Your task to perform on an android device: change notifications settings Image 0: 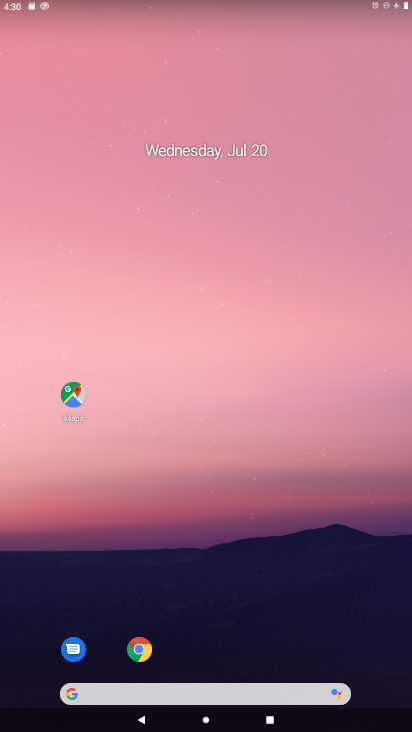
Step 0: drag from (220, 693) to (303, 253)
Your task to perform on an android device: change notifications settings Image 1: 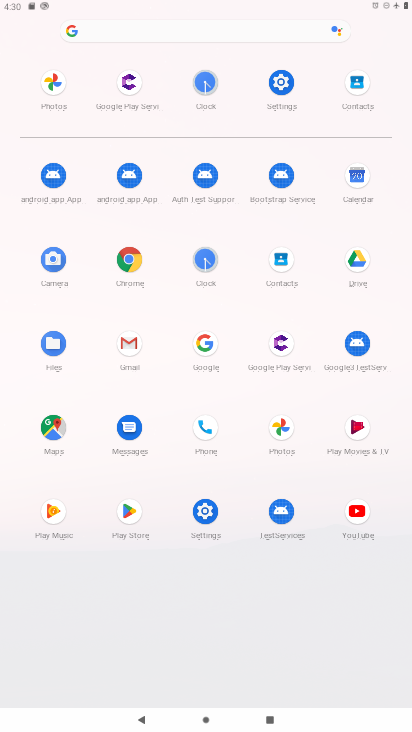
Step 1: click (207, 512)
Your task to perform on an android device: change notifications settings Image 2: 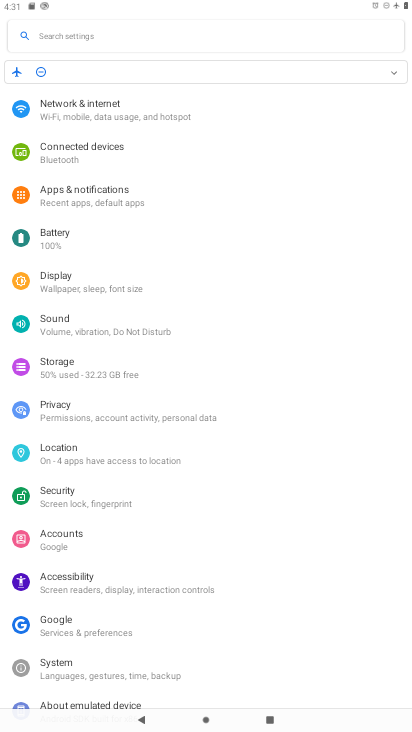
Step 2: click (85, 199)
Your task to perform on an android device: change notifications settings Image 3: 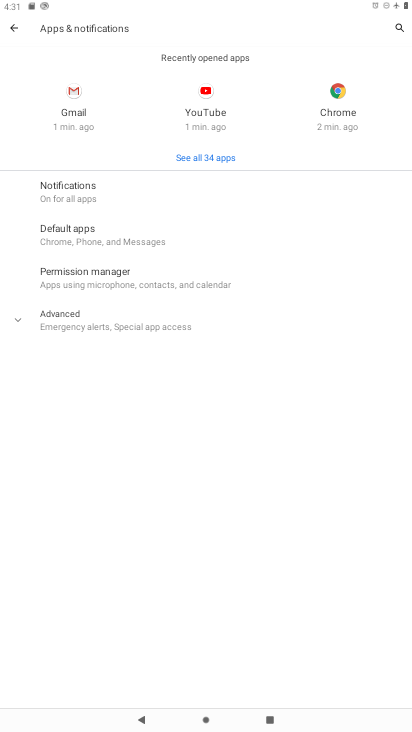
Step 3: click (77, 200)
Your task to perform on an android device: change notifications settings Image 4: 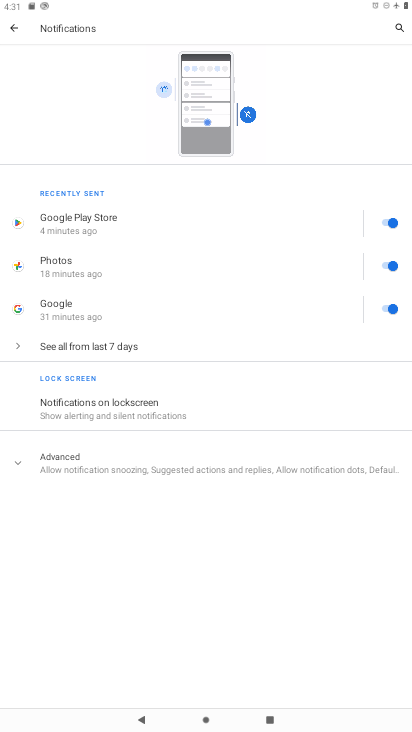
Step 4: click (94, 468)
Your task to perform on an android device: change notifications settings Image 5: 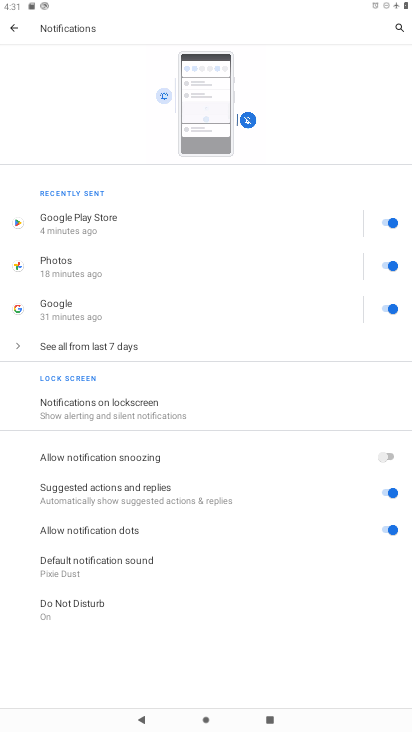
Step 5: click (392, 530)
Your task to perform on an android device: change notifications settings Image 6: 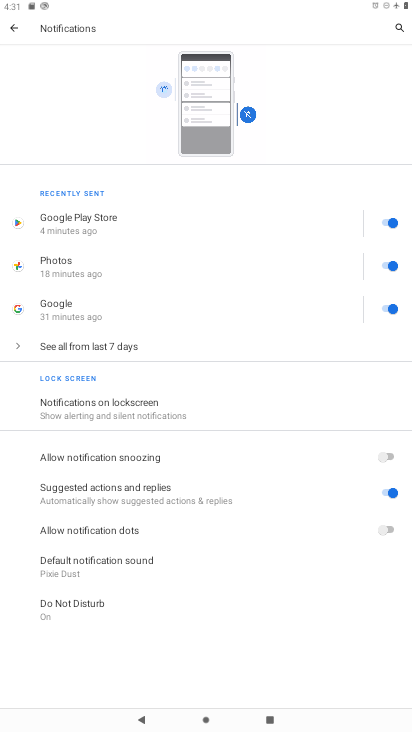
Step 6: task complete